Your task to perform on an android device: Go to Android settings Image 0: 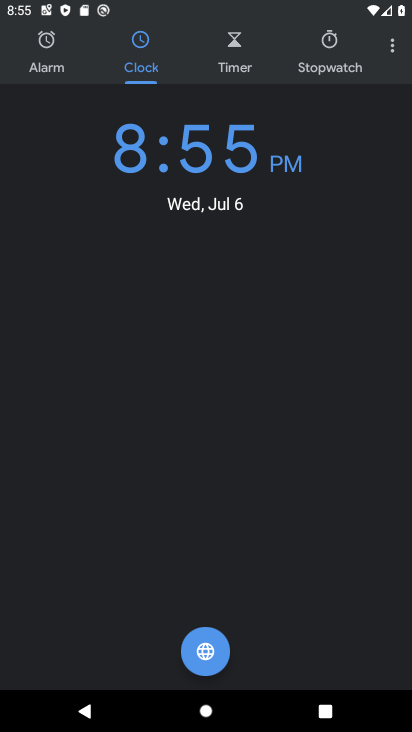
Step 0: press home button
Your task to perform on an android device: Go to Android settings Image 1: 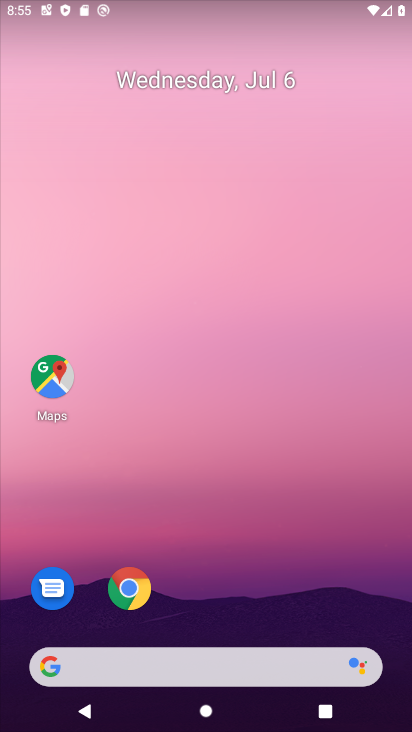
Step 1: drag from (157, 657) to (236, 68)
Your task to perform on an android device: Go to Android settings Image 2: 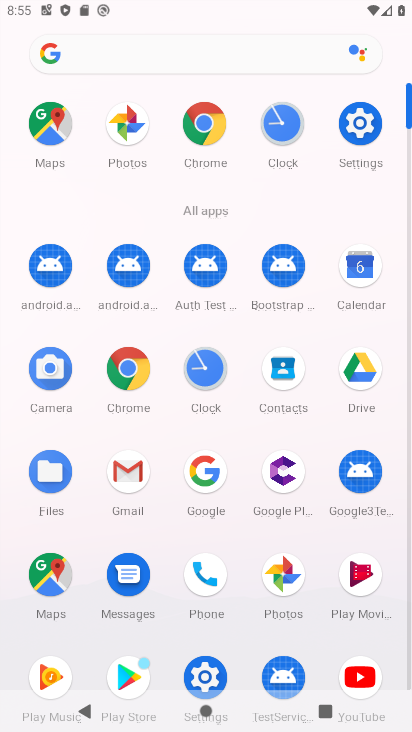
Step 2: click (354, 129)
Your task to perform on an android device: Go to Android settings Image 3: 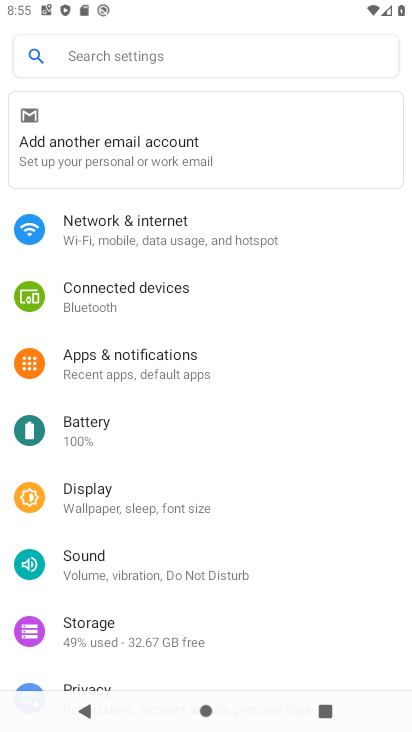
Step 3: task complete